Your task to perform on an android device: Open calendar and show me the first week of next month Image 0: 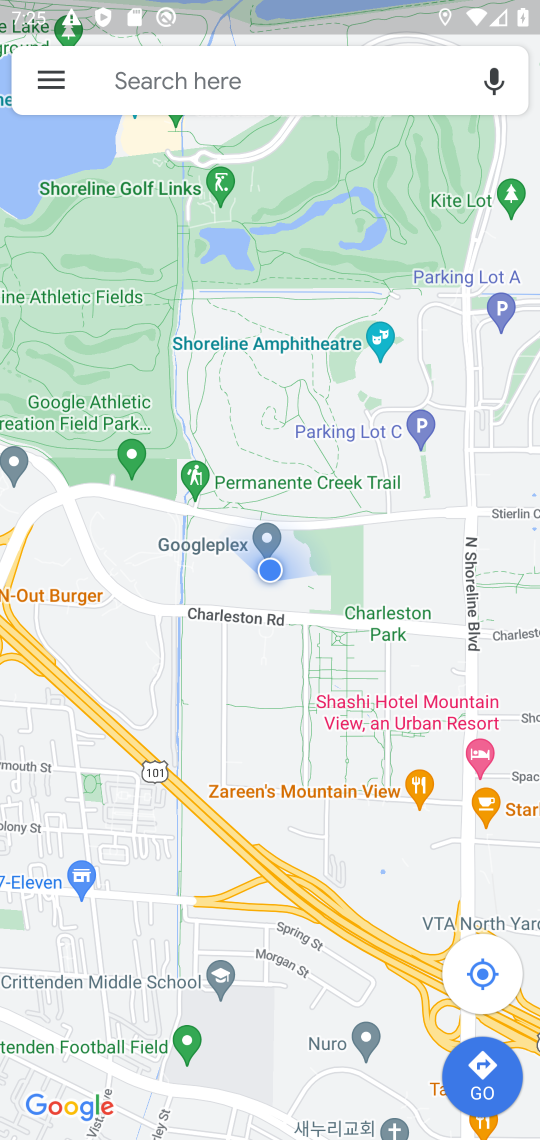
Step 0: press home button
Your task to perform on an android device: Open calendar and show me the first week of next month Image 1: 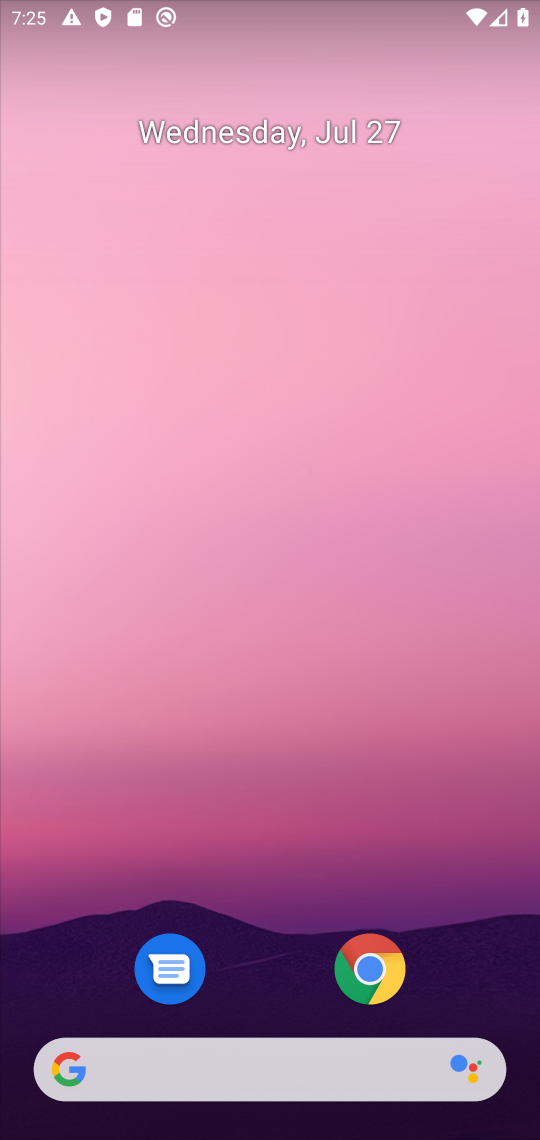
Step 1: drag from (298, 782) to (293, 316)
Your task to perform on an android device: Open calendar and show me the first week of next month Image 2: 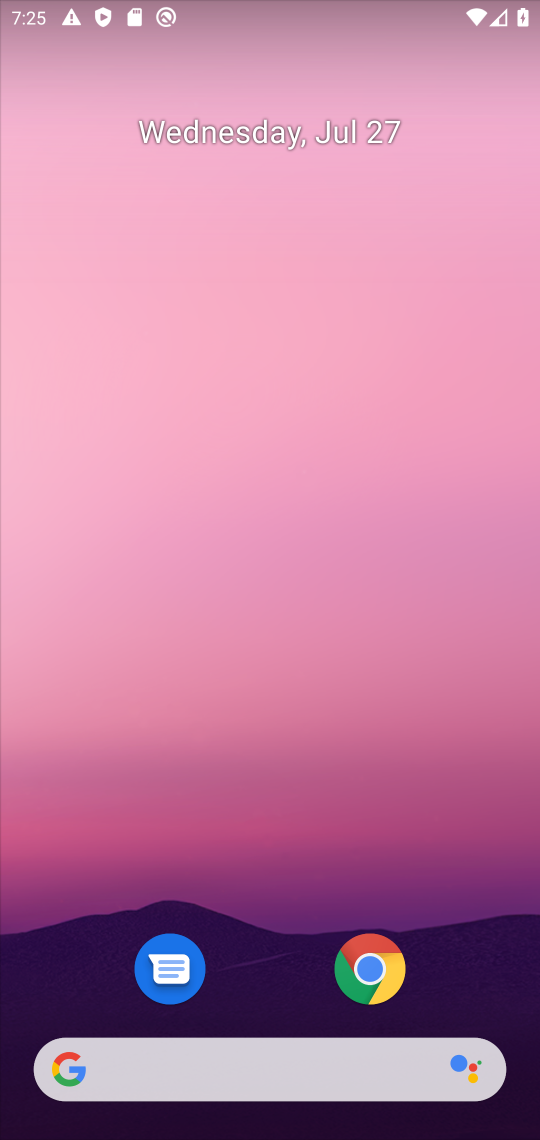
Step 2: drag from (282, 824) to (372, 164)
Your task to perform on an android device: Open calendar and show me the first week of next month Image 3: 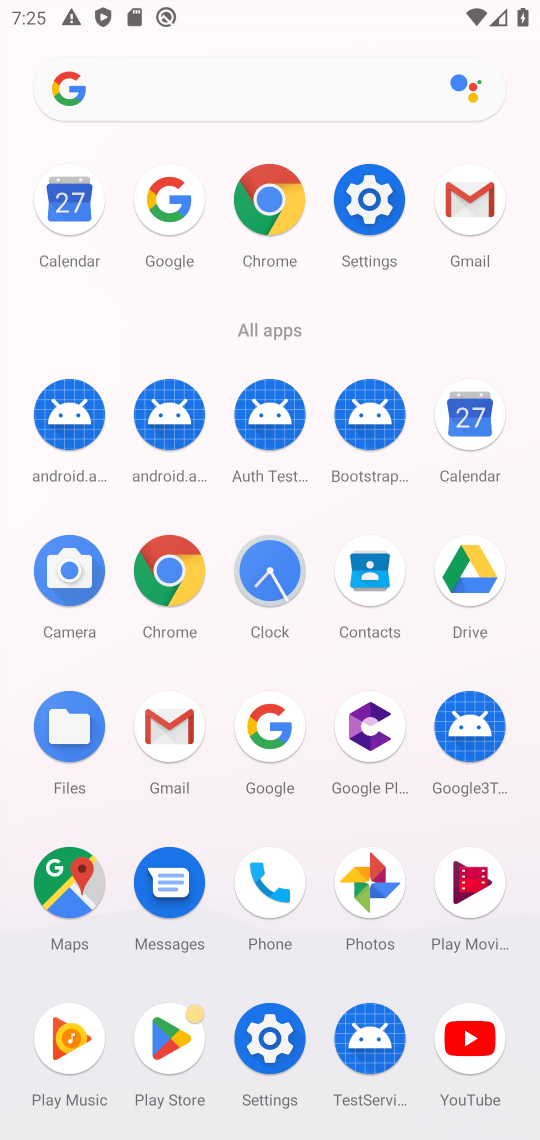
Step 3: click (476, 454)
Your task to perform on an android device: Open calendar and show me the first week of next month Image 4: 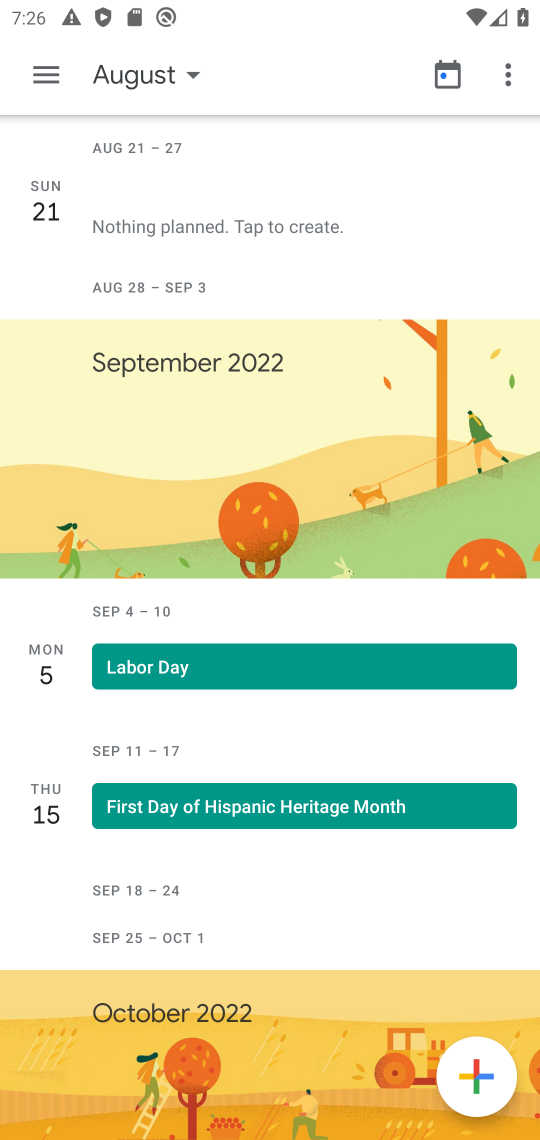
Step 4: click (184, 96)
Your task to perform on an android device: Open calendar and show me the first week of next month Image 5: 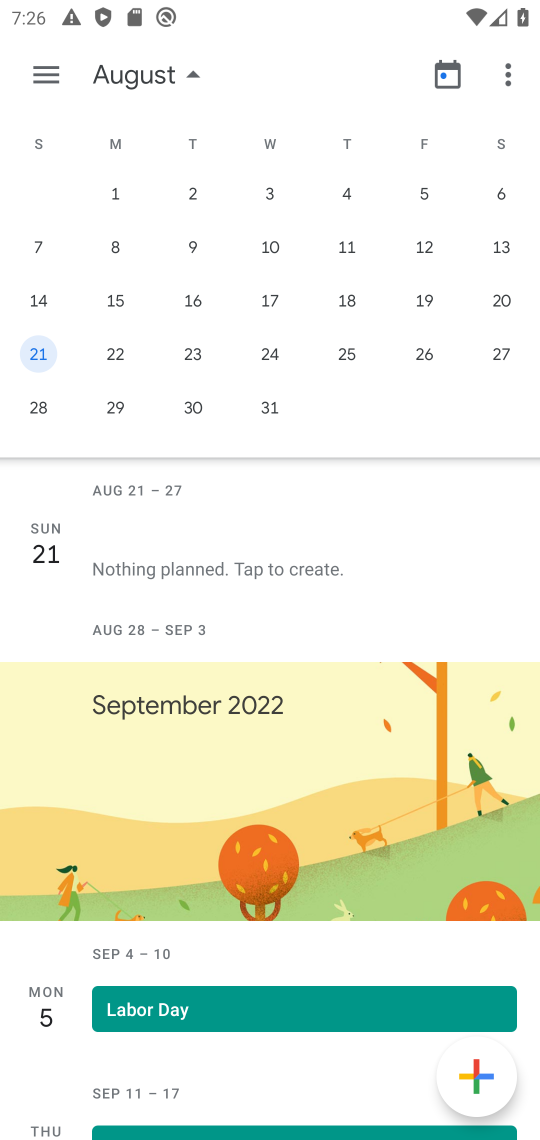
Step 5: click (127, 196)
Your task to perform on an android device: Open calendar and show me the first week of next month Image 6: 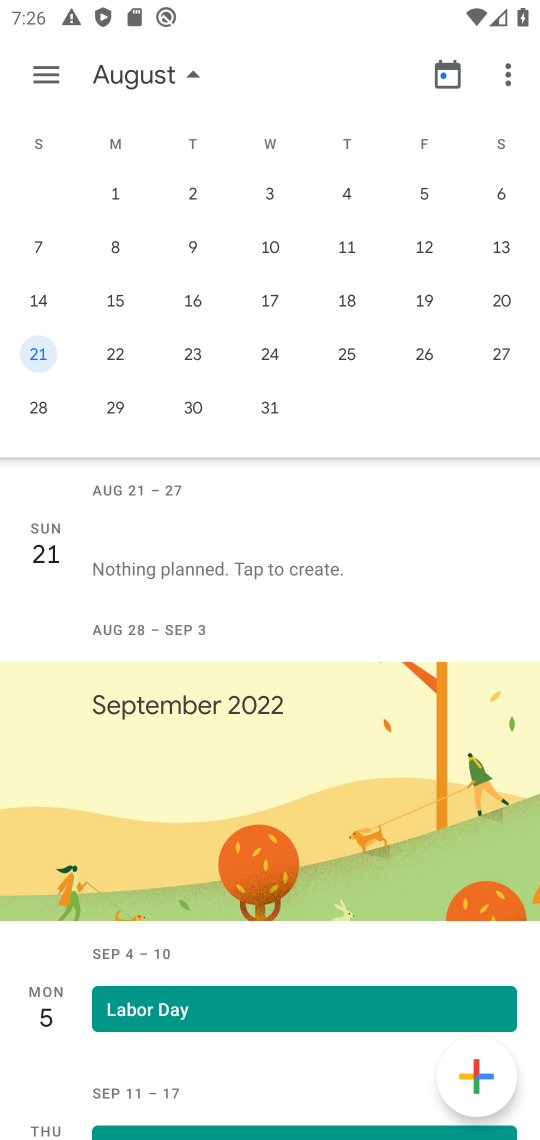
Step 6: click (20, 79)
Your task to perform on an android device: Open calendar and show me the first week of next month Image 7: 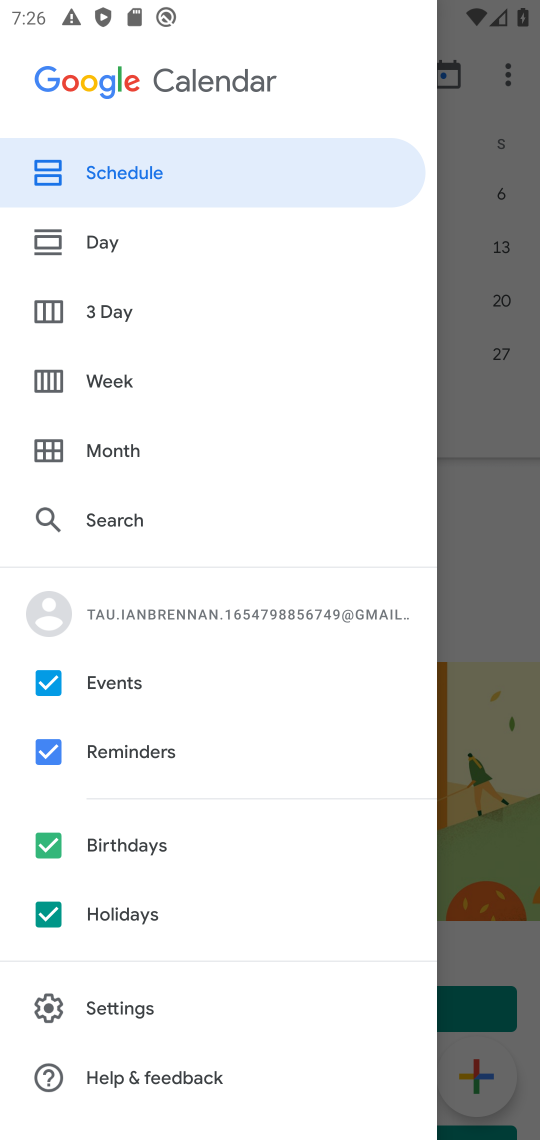
Step 7: click (153, 399)
Your task to perform on an android device: Open calendar and show me the first week of next month Image 8: 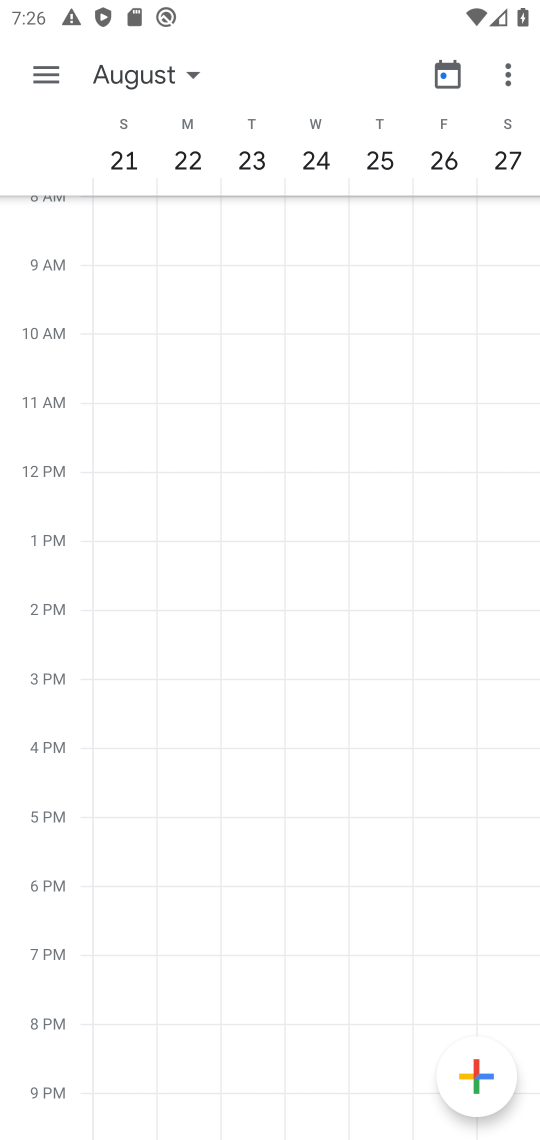
Step 8: click (181, 76)
Your task to perform on an android device: Open calendar and show me the first week of next month Image 9: 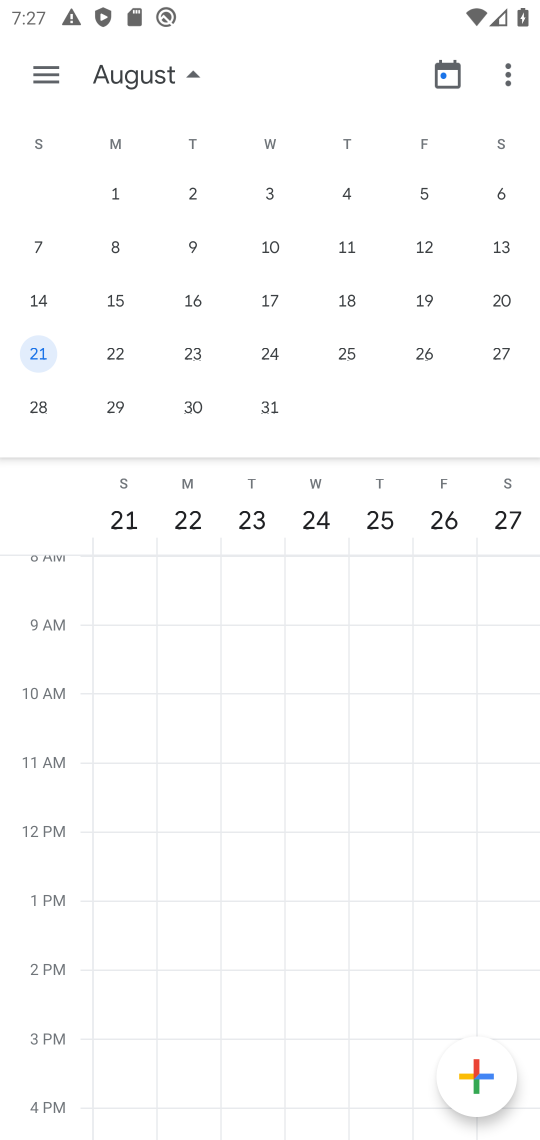
Step 9: click (127, 198)
Your task to perform on an android device: Open calendar and show me the first week of next month Image 10: 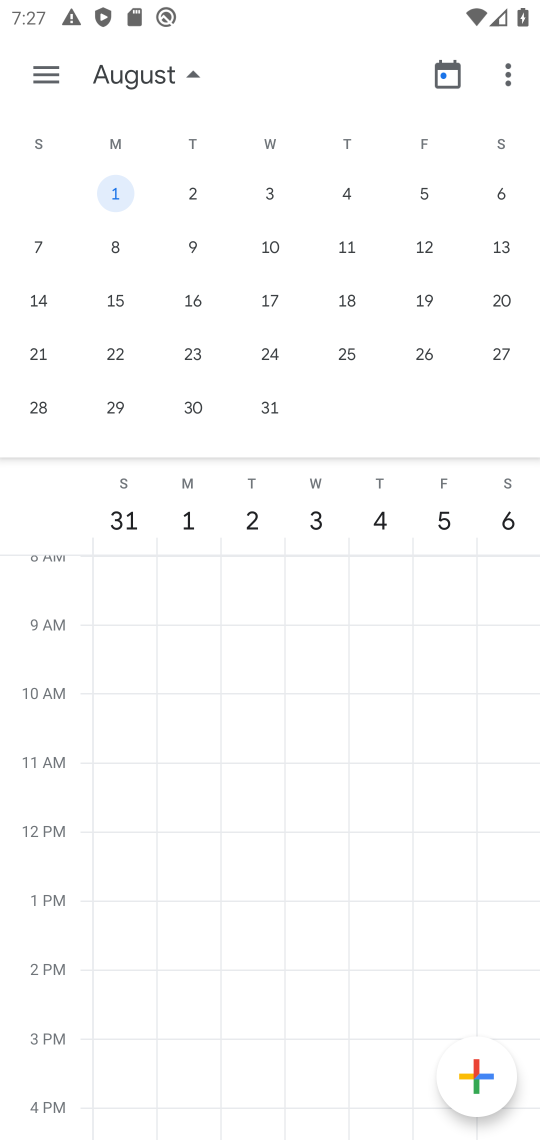
Step 10: click (189, 82)
Your task to perform on an android device: Open calendar and show me the first week of next month Image 11: 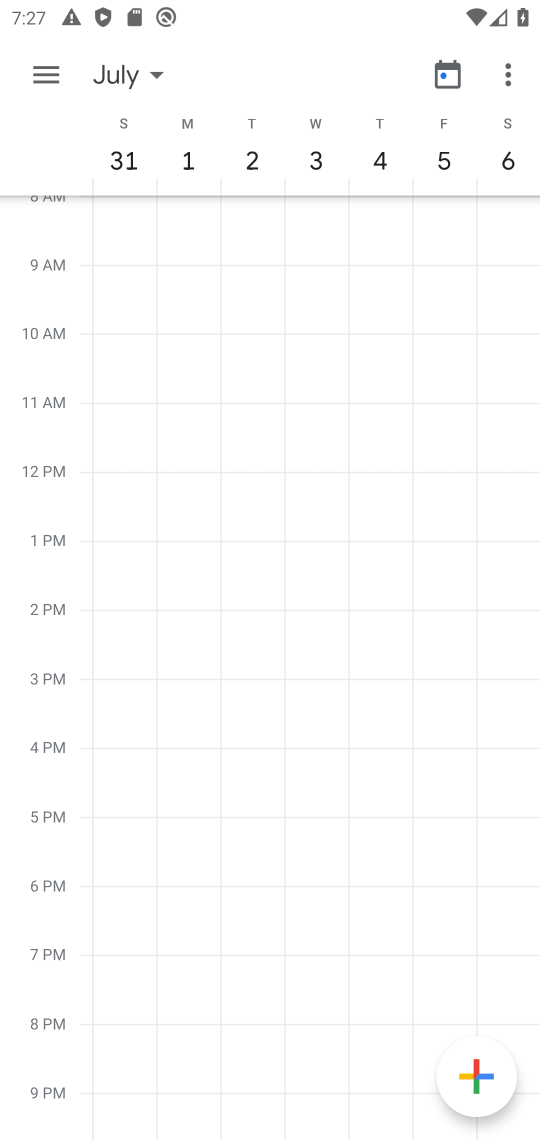
Step 11: task complete